Your task to perform on an android device: turn vacation reply on in the gmail app Image 0: 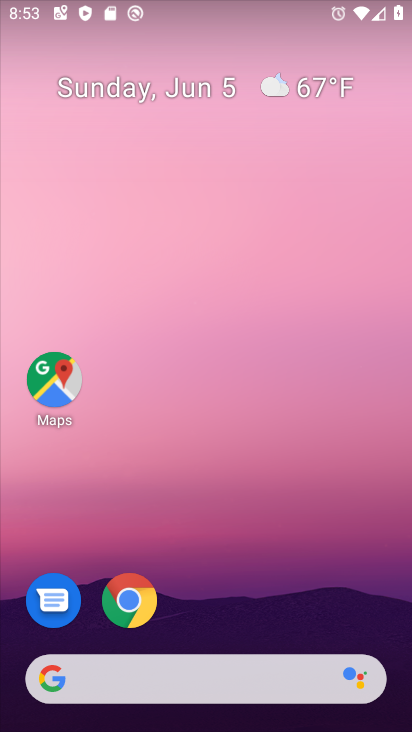
Step 0: drag from (395, 642) to (306, 75)
Your task to perform on an android device: turn vacation reply on in the gmail app Image 1: 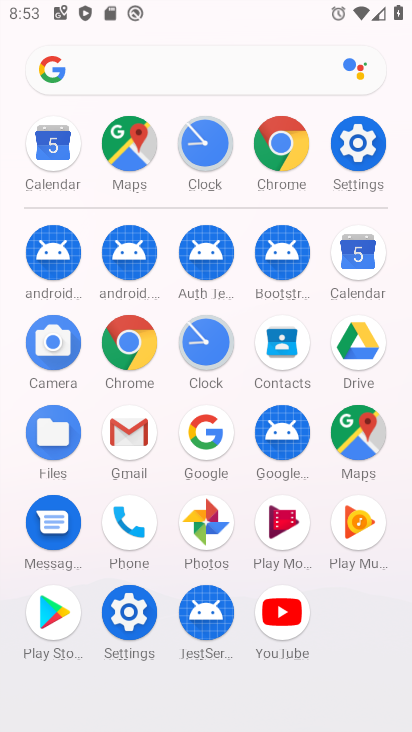
Step 1: click (135, 430)
Your task to perform on an android device: turn vacation reply on in the gmail app Image 2: 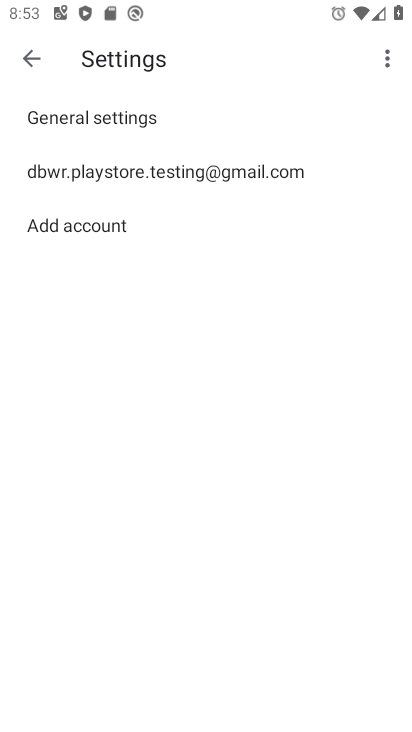
Step 2: click (254, 172)
Your task to perform on an android device: turn vacation reply on in the gmail app Image 3: 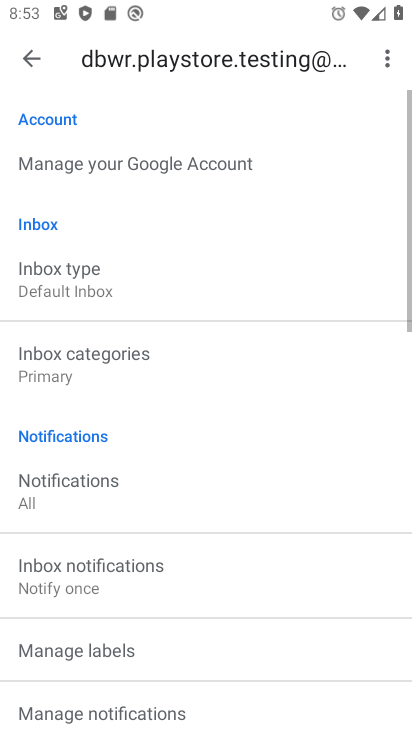
Step 3: drag from (164, 663) to (211, 115)
Your task to perform on an android device: turn vacation reply on in the gmail app Image 4: 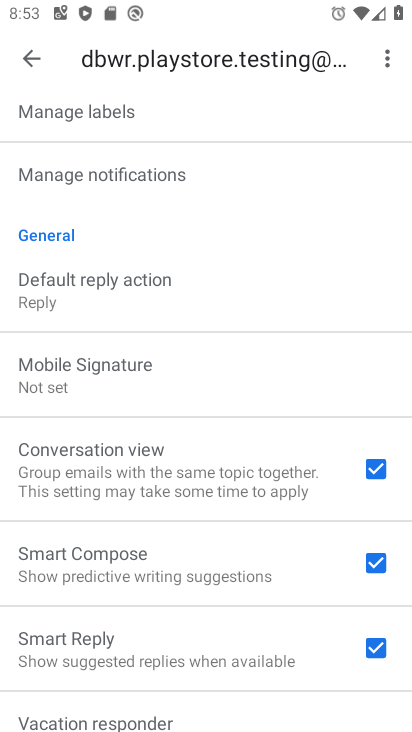
Step 4: drag from (194, 665) to (246, 227)
Your task to perform on an android device: turn vacation reply on in the gmail app Image 5: 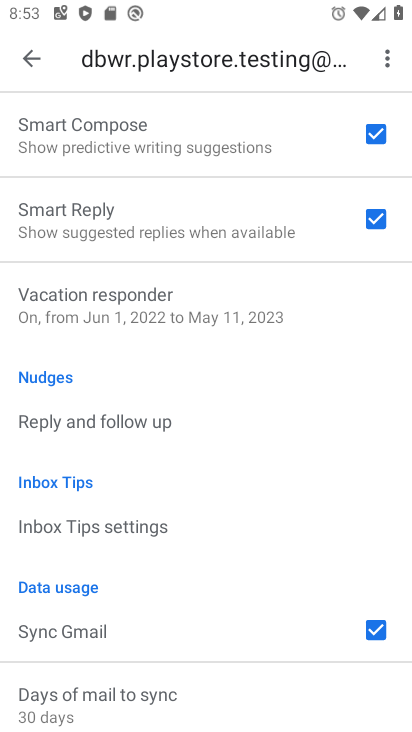
Step 5: click (163, 292)
Your task to perform on an android device: turn vacation reply on in the gmail app Image 6: 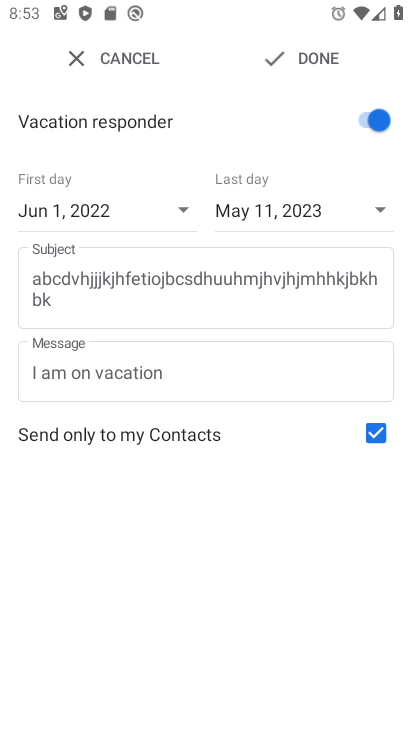
Step 6: task complete